Your task to perform on an android device: What's on my calendar tomorrow? Image 0: 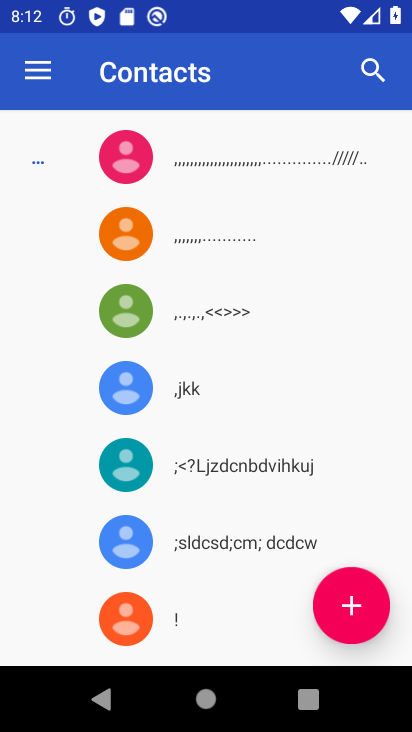
Step 0: press home button
Your task to perform on an android device: What's on my calendar tomorrow? Image 1: 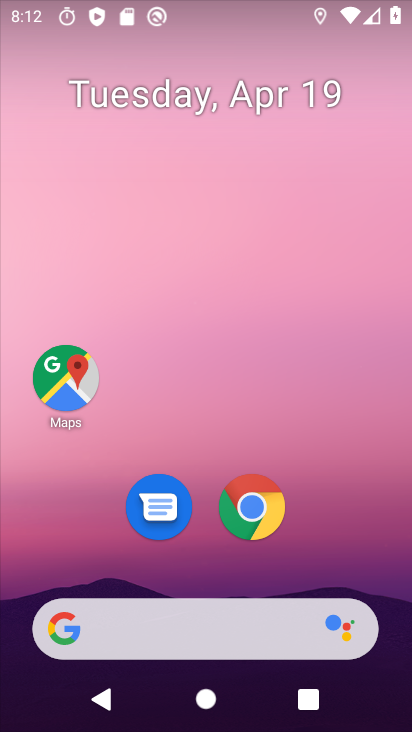
Step 1: drag from (323, 449) to (246, 209)
Your task to perform on an android device: What's on my calendar tomorrow? Image 2: 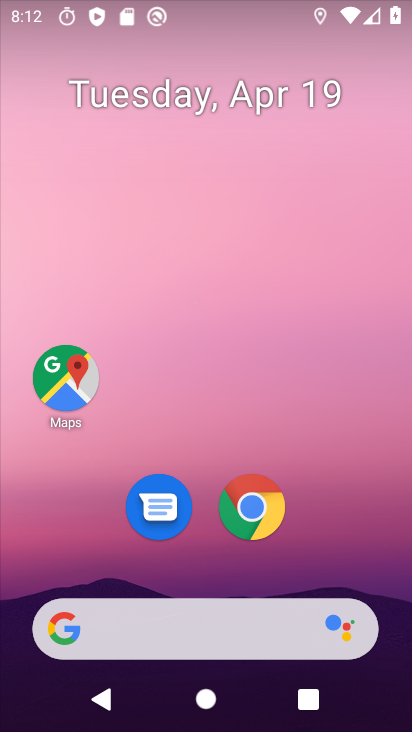
Step 2: drag from (352, 513) to (105, 27)
Your task to perform on an android device: What's on my calendar tomorrow? Image 3: 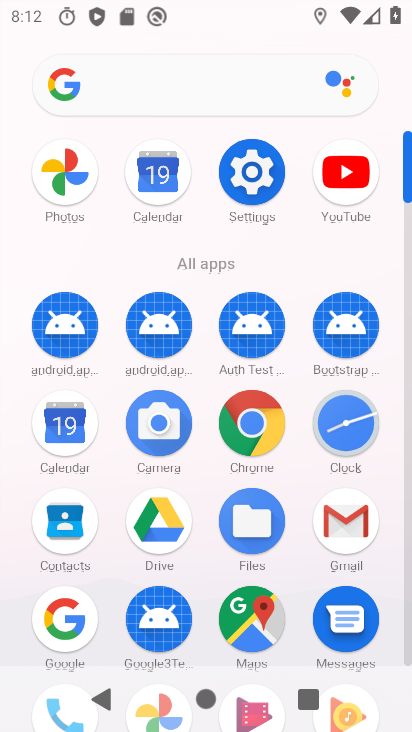
Step 3: click (156, 180)
Your task to perform on an android device: What's on my calendar tomorrow? Image 4: 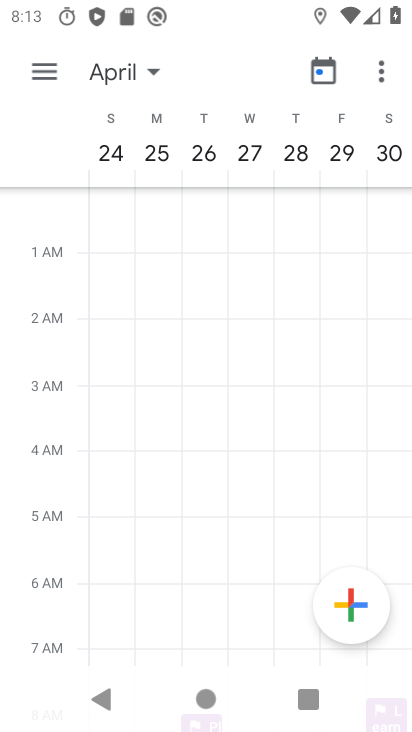
Step 4: drag from (125, 152) to (395, 160)
Your task to perform on an android device: What's on my calendar tomorrow? Image 5: 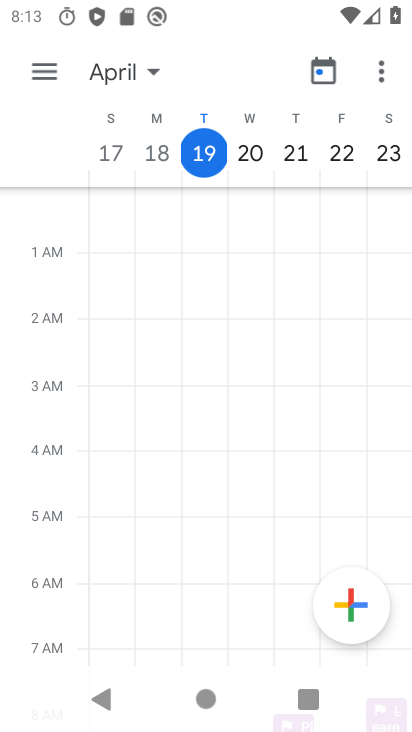
Step 5: click (252, 153)
Your task to perform on an android device: What's on my calendar tomorrow? Image 6: 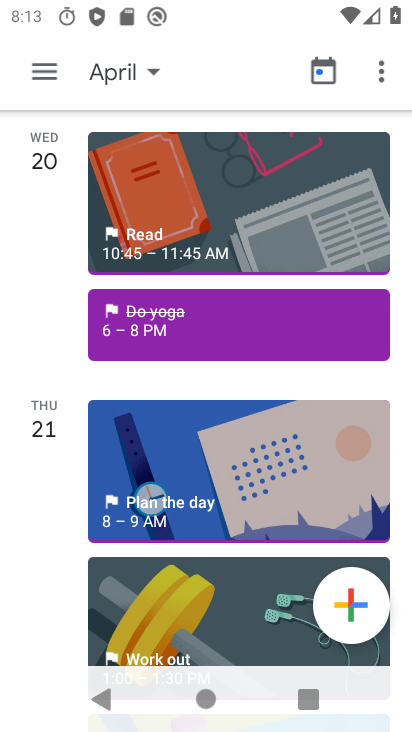
Step 6: click (39, 75)
Your task to perform on an android device: What's on my calendar tomorrow? Image 7: 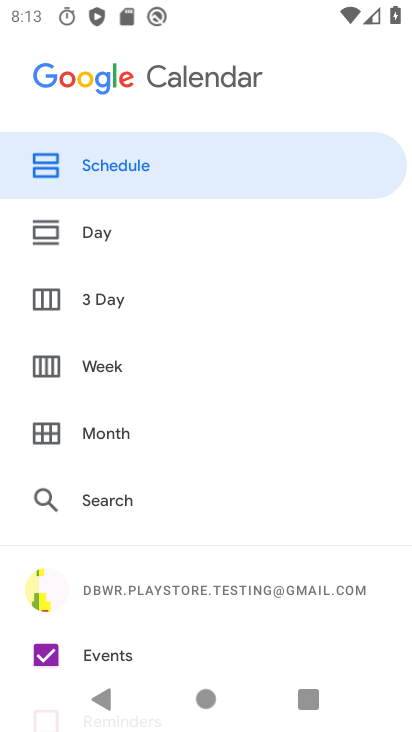
Step 7: drag from (173, 616) to (151, 348)
Your task to perform on an android device: What's on my calendar tomorrow? Image 8: 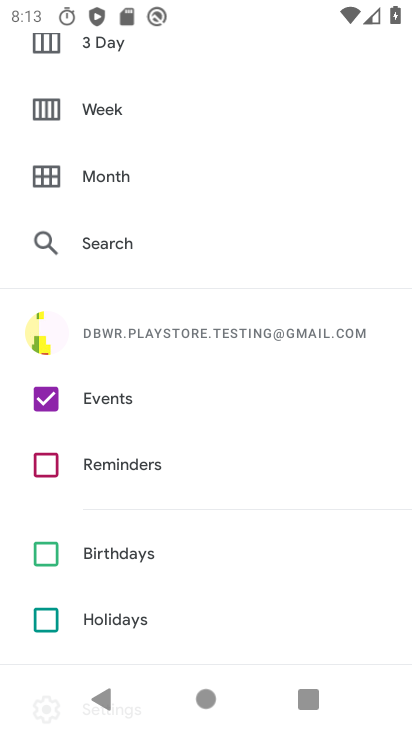
Step 8: click (53, 508)
Your task to perform on an android device: What's on my calendar tomorrow? Image 9: 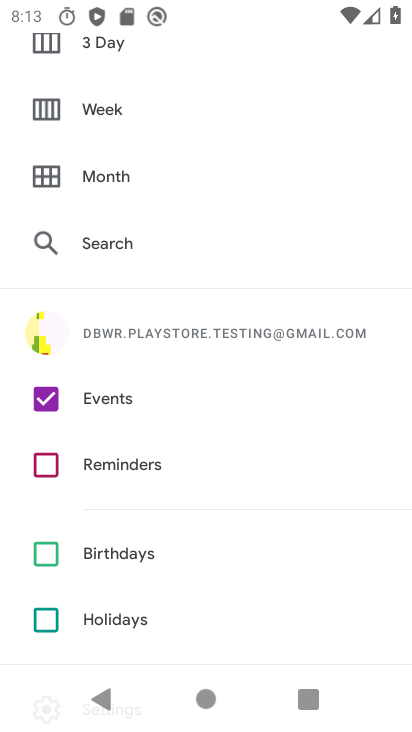
Step 9: click (56, 462)
Your task to perform on an android device: What's on my calendar tomorrow? Image 10: 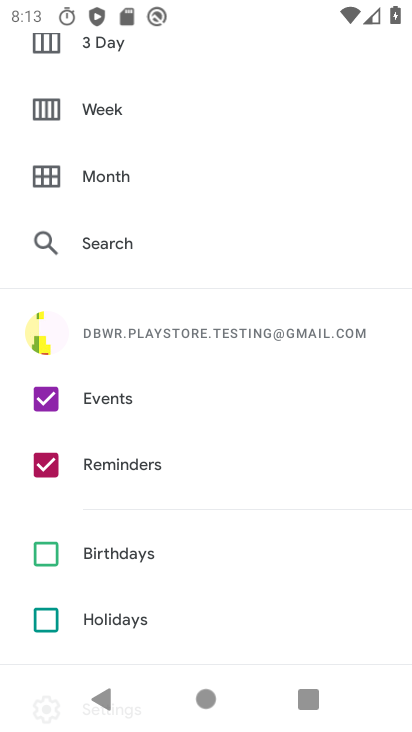
Step 10: click (52, 556)
Your task to perform on an android device: What's on my calendar tomorrow? Image 11: 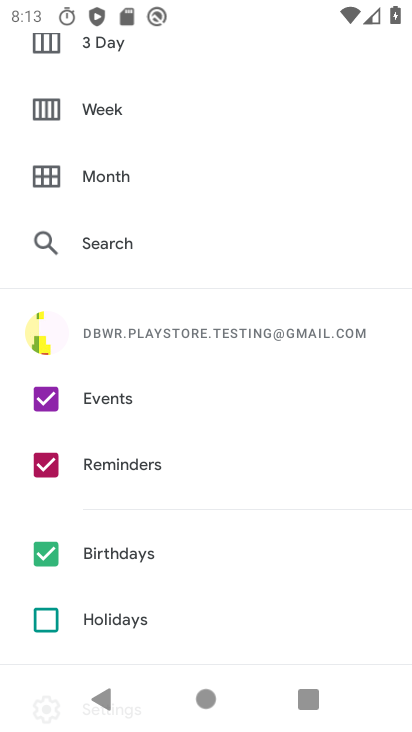
Step 11: click (43, 615)
Your task to perform on an android device: What's on my calendar tomorrow? Image 12: 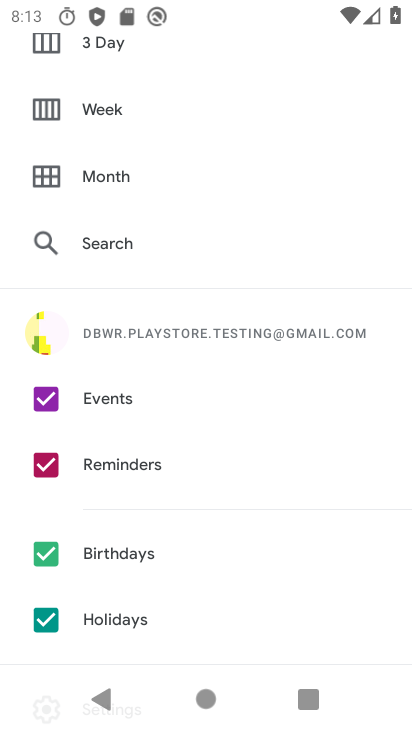
Step 12: task complete